Your task to perform on an android device: What's on my calendar tomorrow? Image 0: 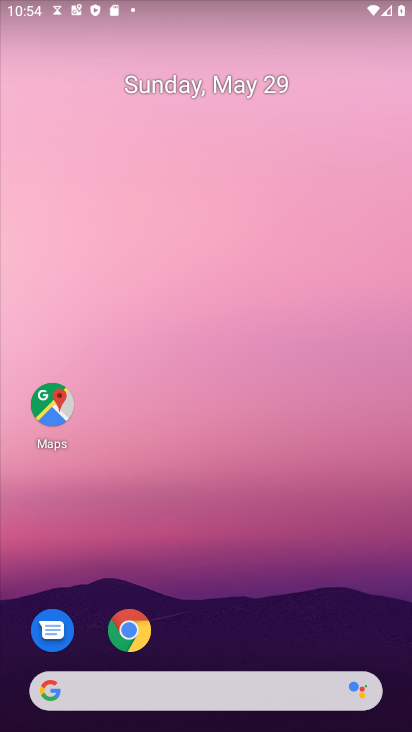
Step 0: drag from (188, 625) to (169, 6)
Your task to perform on an android device: What's on my calendar tomorrow? Image 1: 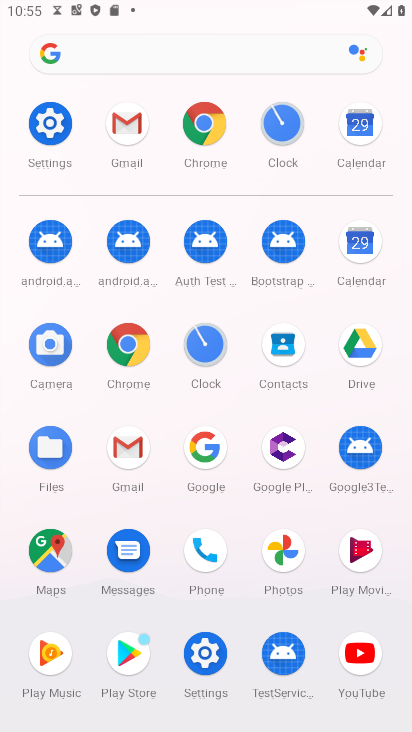
Step 1: click (368, 149)
Your task to perform on an android device: What's on my calendar tomorrow? Image 2: 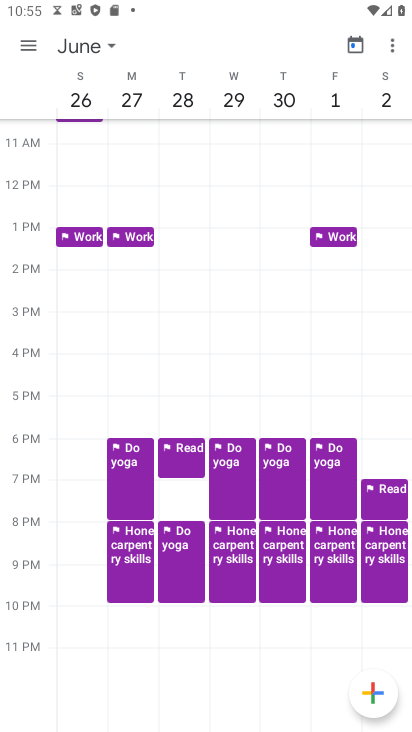
Step 2: click (111, 30)
Your task to perform on an android device: What's on my calendar tomorrow? Image 3: 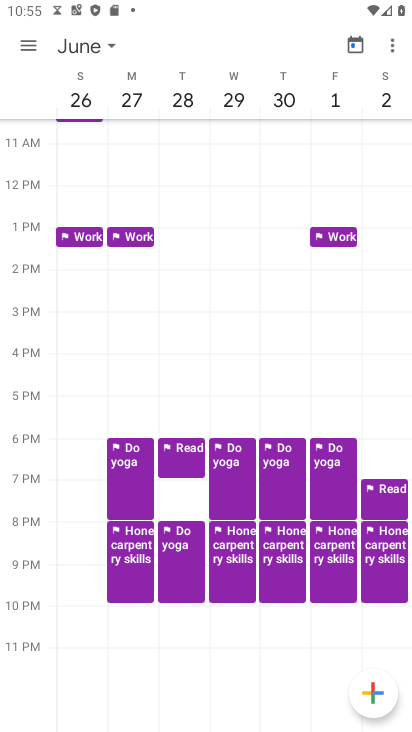
Step 3: click (105, 44)
Your task to perform on an android device: What's on my calendar tomorrow? Image 4: 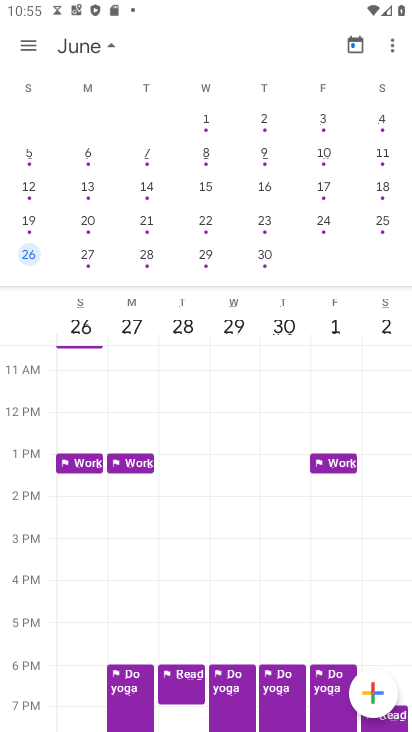
Step 4: drag from (111, 135) to (403, 110)
Your task to perform on an android device: What's on my calendar tomorrow? Image 5: 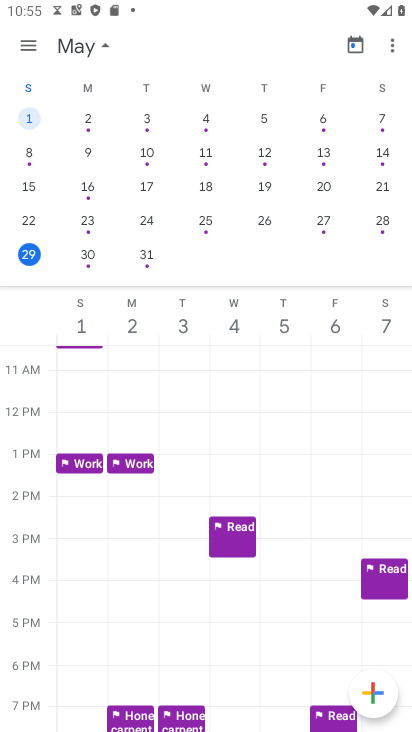
Step 5: click (142, 245)
Your task to perform on an android device: What's on my calendar tomorrow? Image 6: 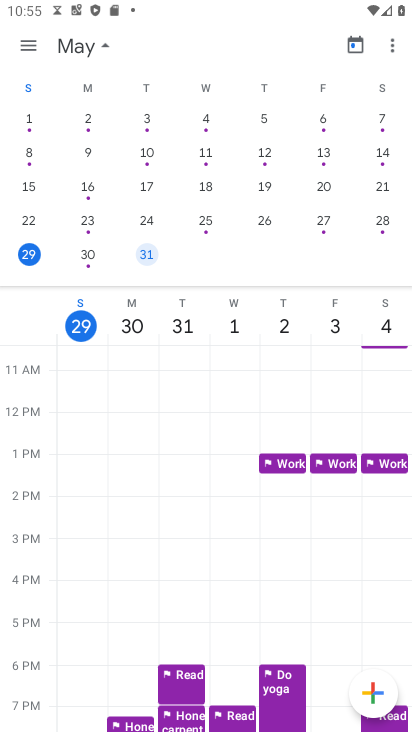
Step 6: click (33, 45)
Your task to perform on an android device: What's on my calendar tomorrow? Image 7: 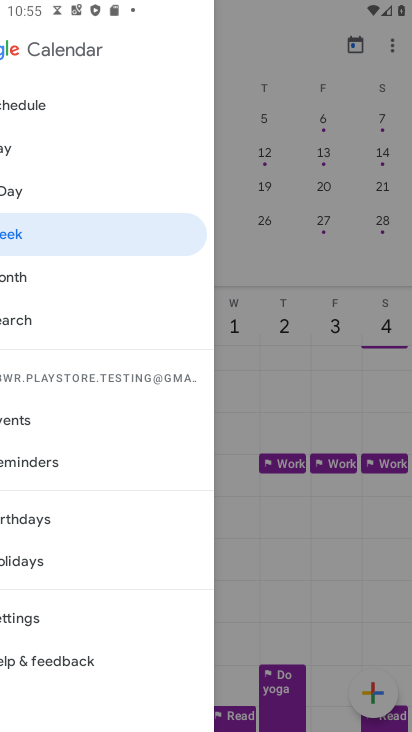
Step 7: click (33, 45)
Your task to perform on an android device: What's on my calendar tomorrow? Image 8: 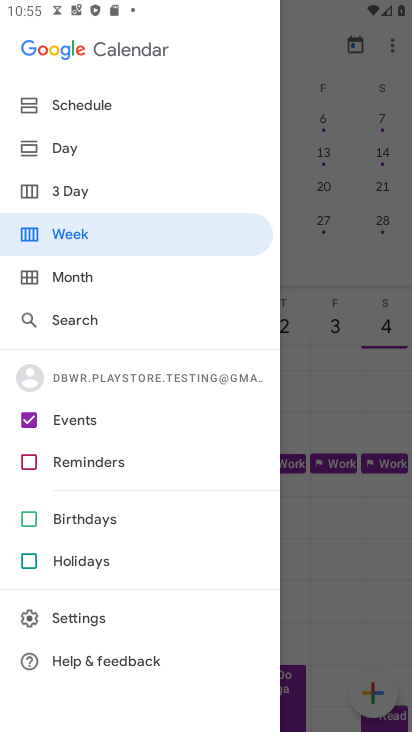
Step 8: click (59, 112)
Your task to perform on an android device: What's on my calendar tomorrow? Image 9: 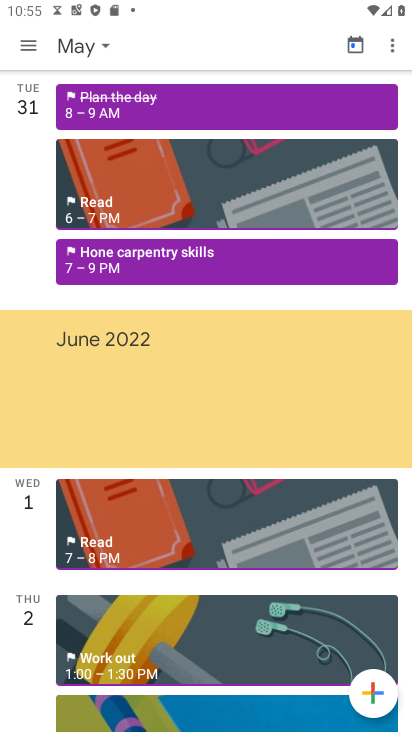
Step 9: task complete